Your task to perform on an android device: Go to CNN.com Image 0: 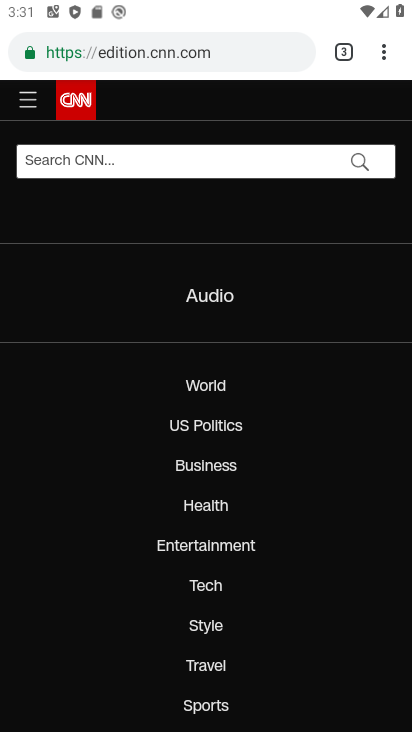
Step 0: click (249, 51)
Your task to perform on an android device: Go to CNN.com Image 1: 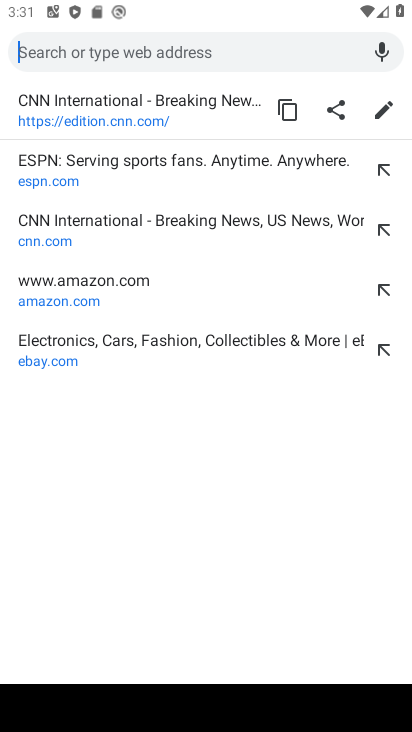
Step 1: type "cnn"
Your task to perform on an android device: Go to CNN.com Image 2: 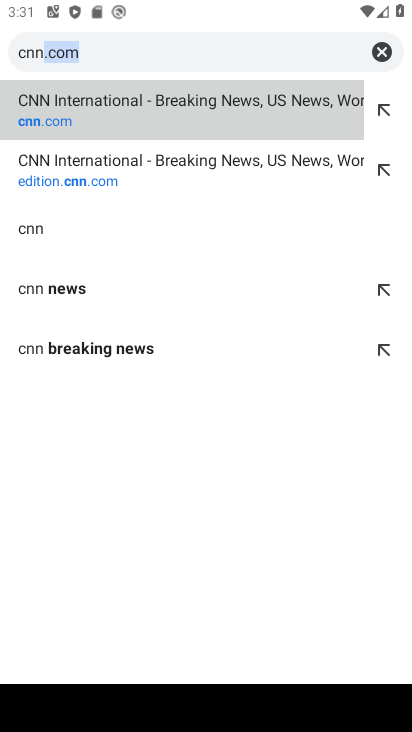
Step 2: click (167, 128)
Your task to perform on an android device: Go to CNN.com Image 3: 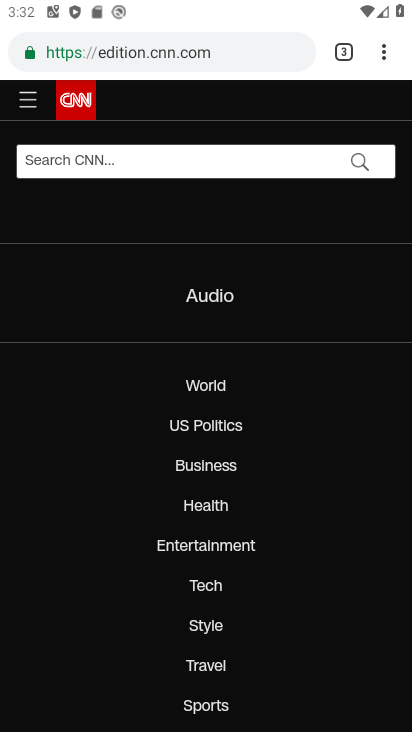
Step 3: task complete